Your task to perform on an android device: Set the phone to "Do not disturb". Image 0: 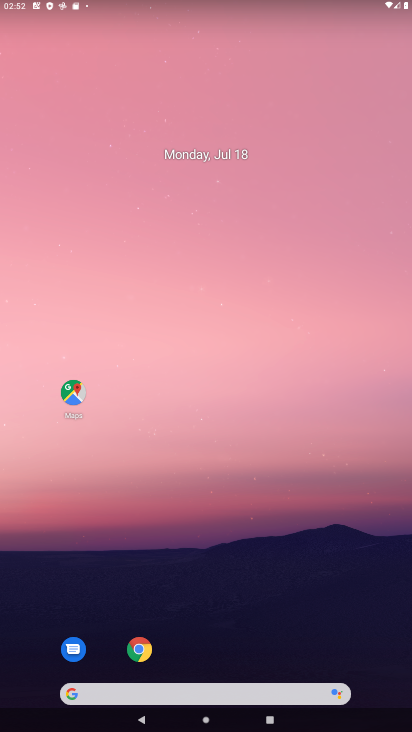
Step 0: drag from (175, 718) to (120, 169)
Your task to perform on an android device: Set the phone to "Do not disturb". Image 1: 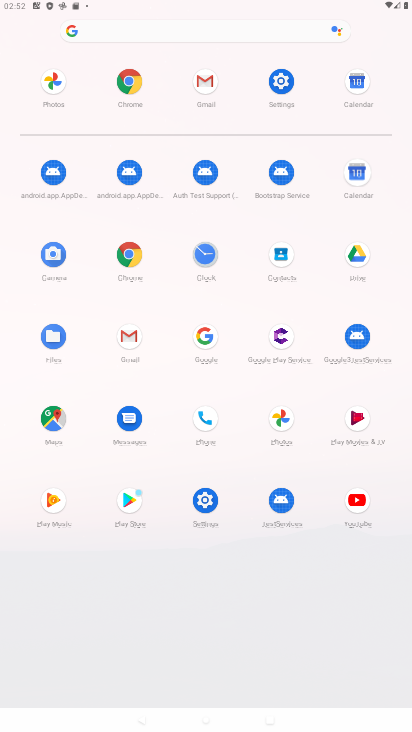
Step 1: click (276, 79)
Your task to perform on an android device: Set the phone to "Do not disturb". Image 2: 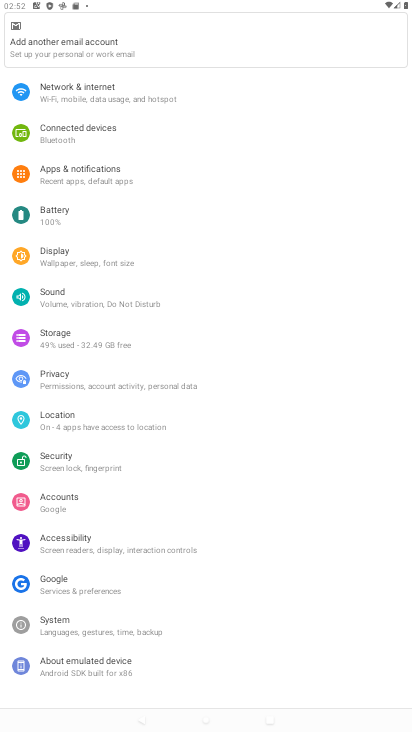
Step 2: click (126, 301)
Your task to perform on an android device: Set the phone to "Do not disturb". Image 3: 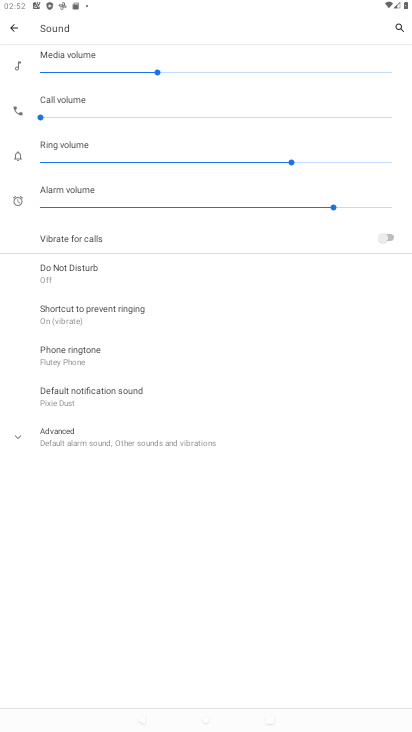
Step 3: click (77, 269)
Your task to perform on an android device: Set the phone to "Do not disturb". Image 4: 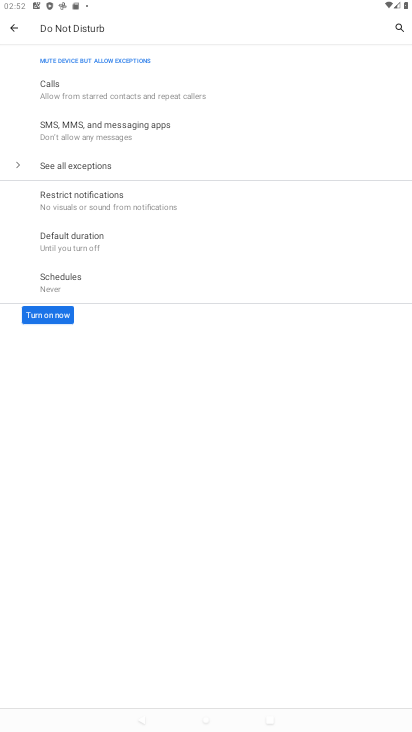
Step 4: click (54, 314)
Your task to perform on an android device: Set the phone to "Do not disturb". Image 5: 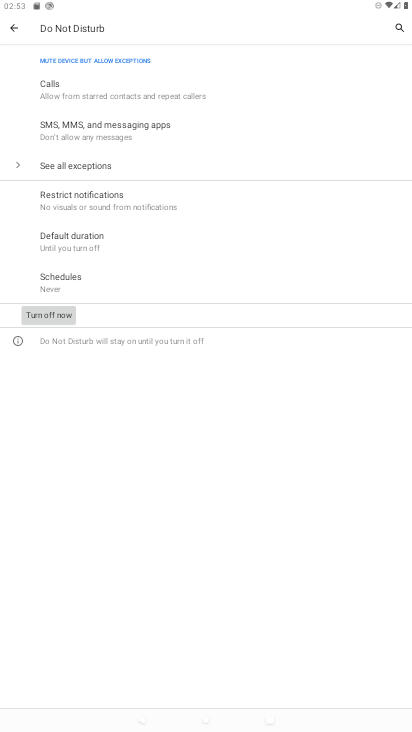
Step 5: task complete